Your task to perform on an android device: turn off picture-in-picture Image 0: 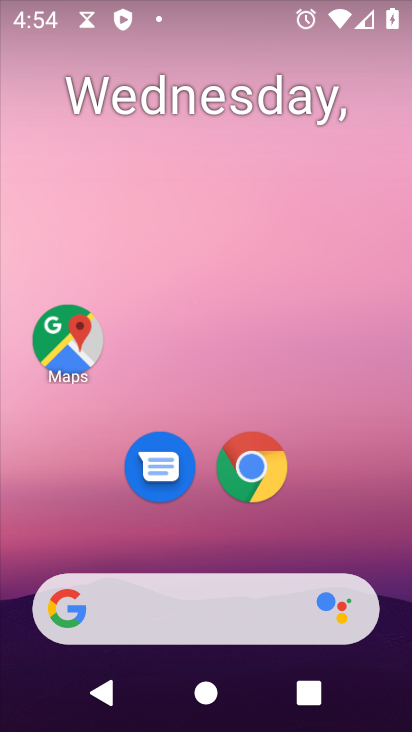
Step 0: click (264, 456)
Your task to perform on an android device: turn off picture-in-picture Image 1: 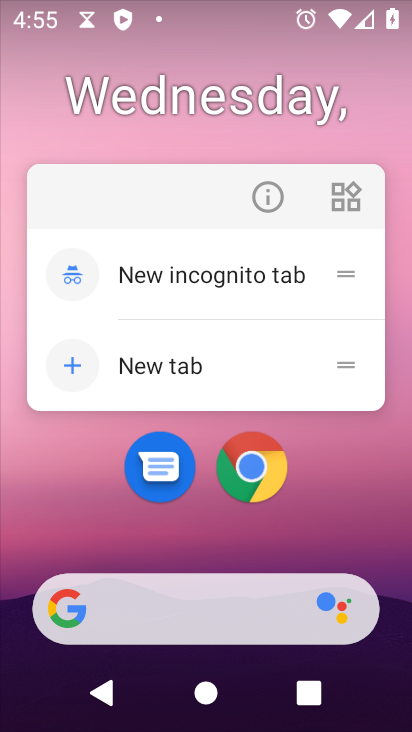
Step 1: click (273, 195)
Your task to perform on an android device: turn off picture-in-picture Image 2: 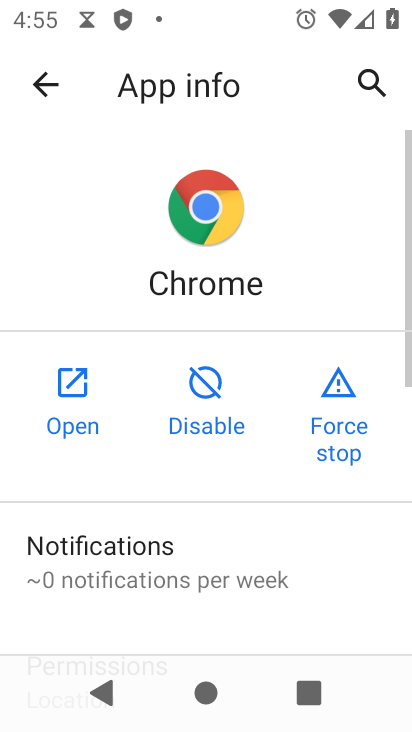
Step 2: drag from (167, 582) to (249, 8)
Your task to perform on an android device: turn off picture-in-picture Image 3: 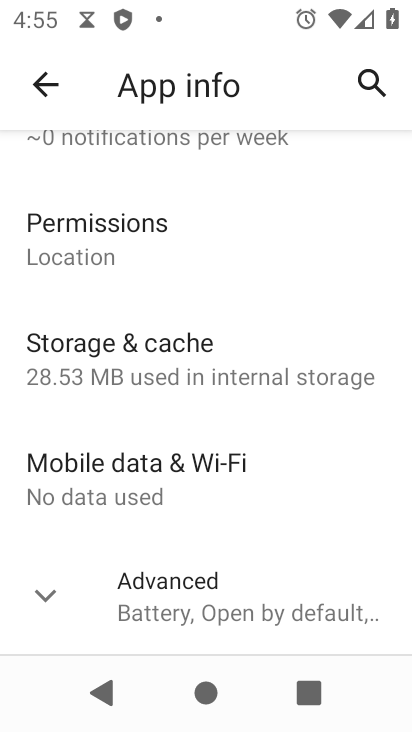
Step 3: drag from (153, 653) to (228, 156)
Your task to perform on an android device: turn off picture-in-picture Image 4: 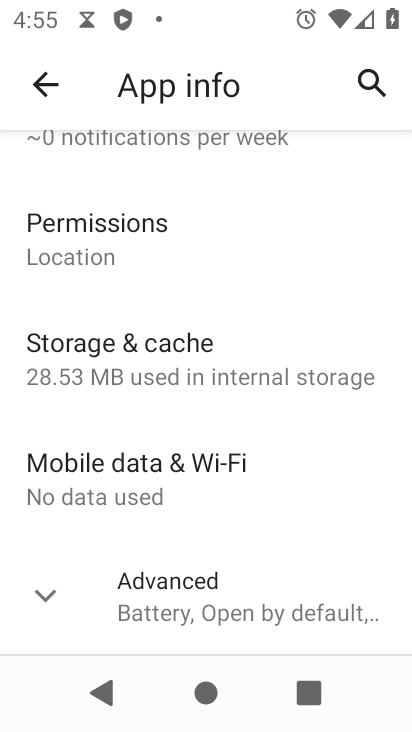
Step 4: click (161, 601)
Your task to perform on an android device: turn off picture-in-picture Image 5: 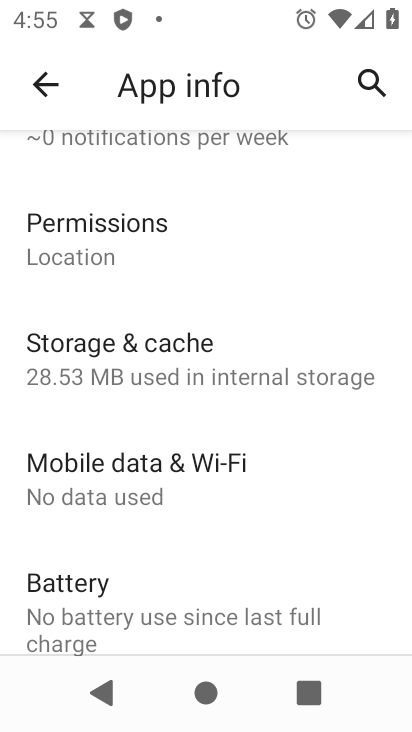
Step 5: drag from (157, 514) to (192, 96)
Your task to perform on an android device: turn off picture-in-picture Image 6: 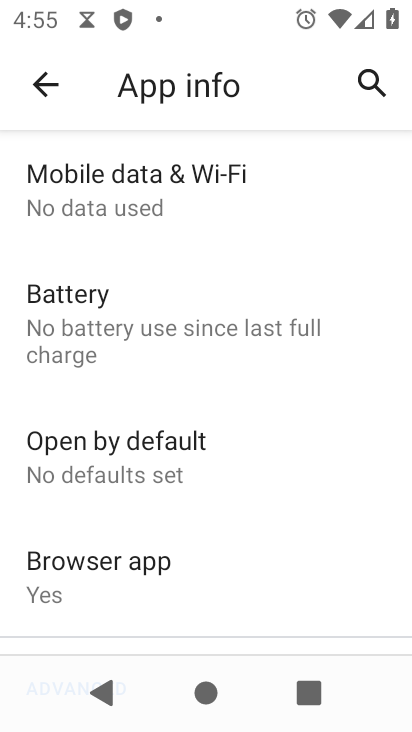
Step 6: drag from (208, 551) to (293, 121)
Your task to perform on an android device: turn off picture-in-picture Image 7: 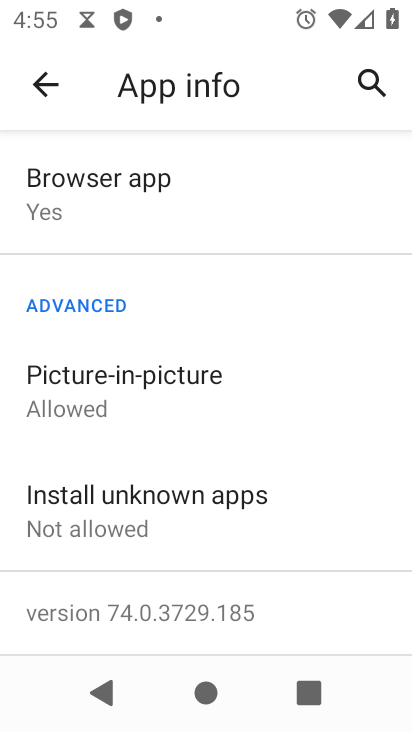
Step 7: click (157, 385)
Your task to perform on an android device: turn off picture-in-picture Image 8: 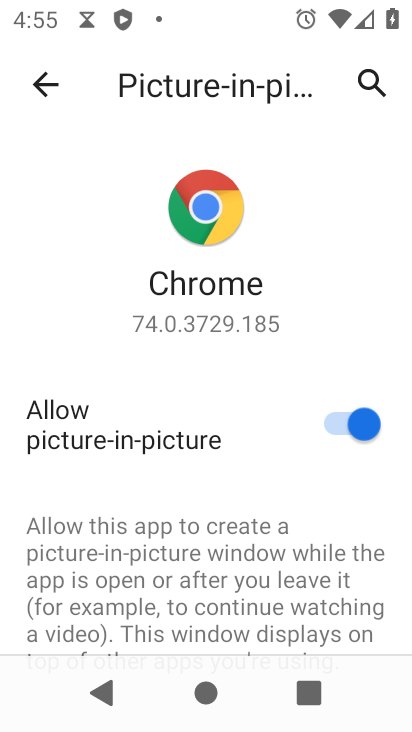
Step 8: drag from (214, 545) to (287, 111)
Your task to perform on an android device: turn off picture-in-picture Image 9: 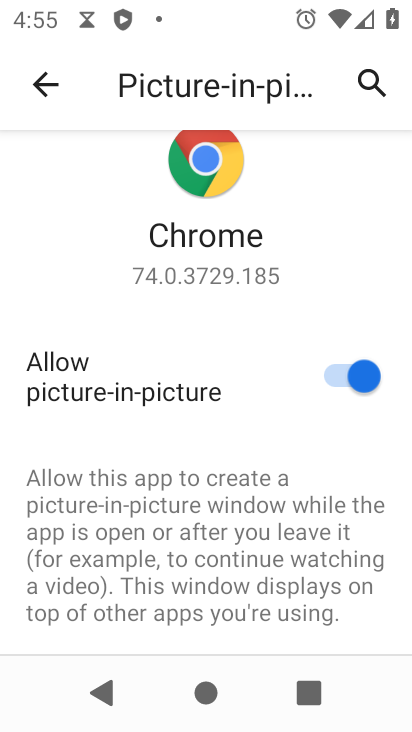
Step 9: click (371, 361)
Your task to perform on an android device: turn off picture-in-picture Image 10: 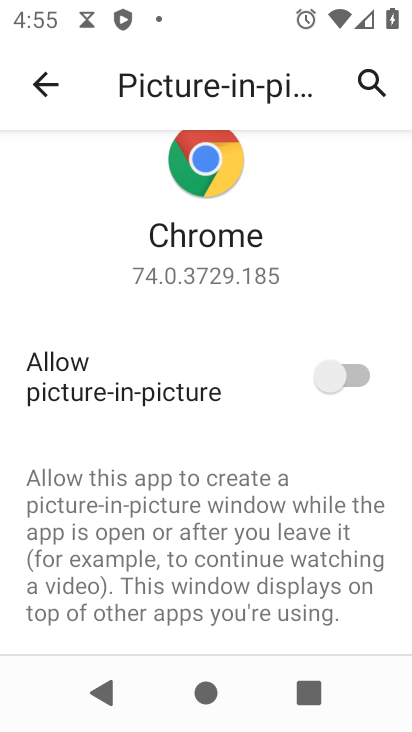
Step 10: task complete